Your task to perform on an android device: Open Amazon Image 0: 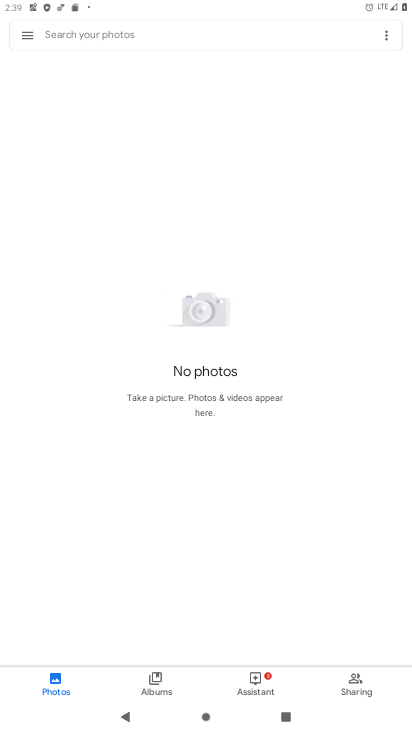
Step 0: press home button
Your task to perform on an android device: Open Amazon Image 1: 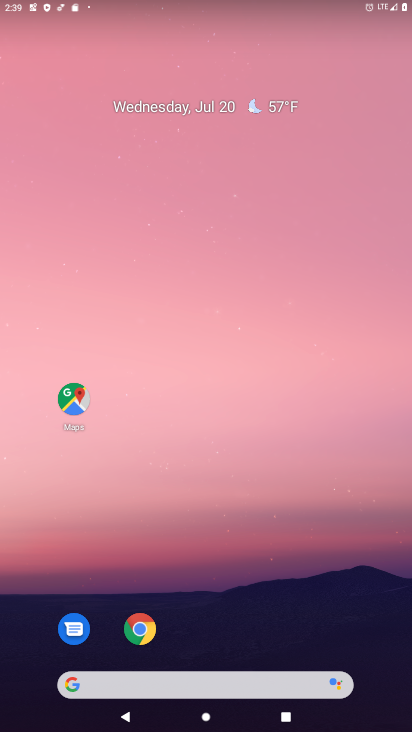
Step 1: click (139, 631)
Your task to perform on an android device: Open Amazon Image 2: 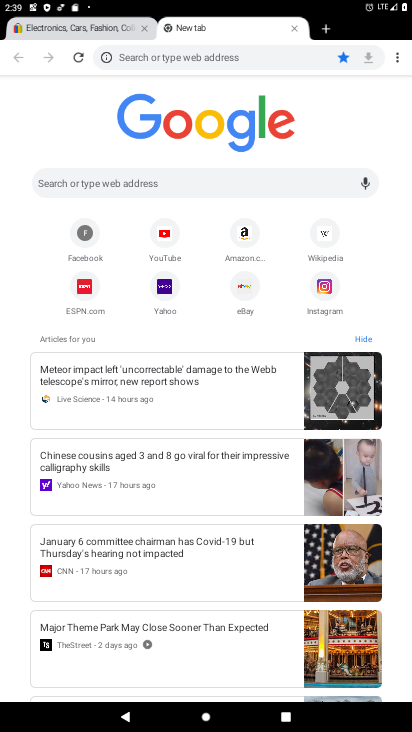
Step 2: click (89, 183)
Your task to perform on an android device: Open Amazon Image 3: 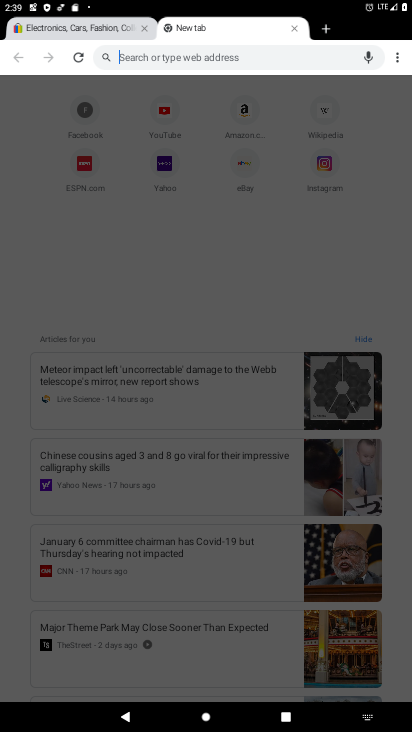
Step 3: type "amazon"
Your task to perform on an android device: Open Amazon Image 4: 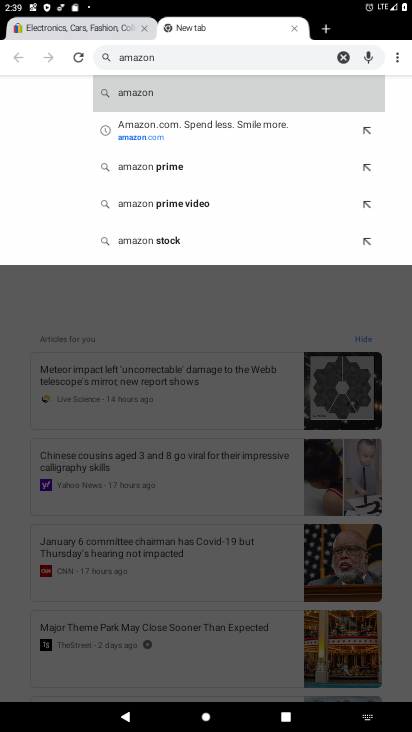
Step 4: click (143, 89)
Your task to perform on an android device: Open Amazon Image 5: 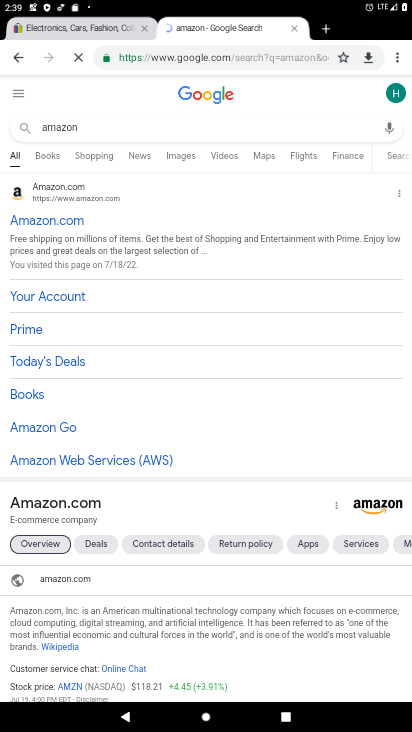
Step 5: click (54, 225)
Your task to perform on an android device: Open Amazon Image 6: 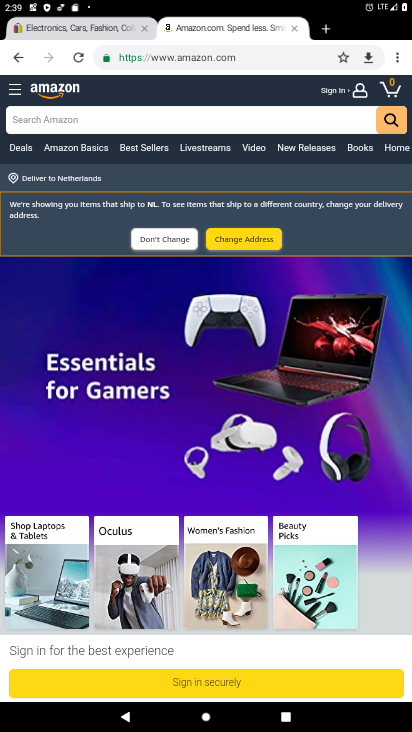
Step 6: task complete